Your task to perform on an android device: open app "Walmart Shopping & Grocery" (install if not already installed) and go to login screen Image 0: 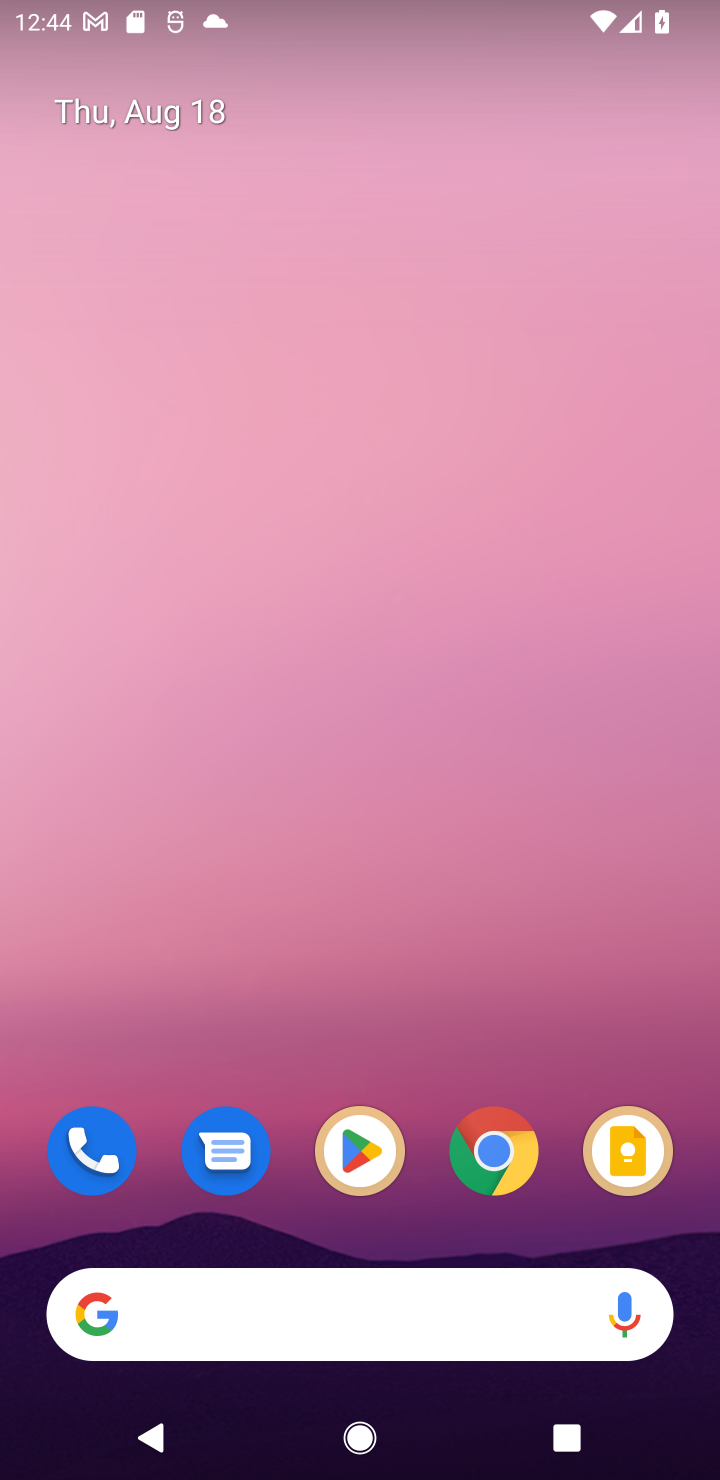
Step 0: click (348, 1152)
Your task to perform on an android device: open app "Walmart Shopping & Grocery" (install if not already installed) and go to login screen Image 1: 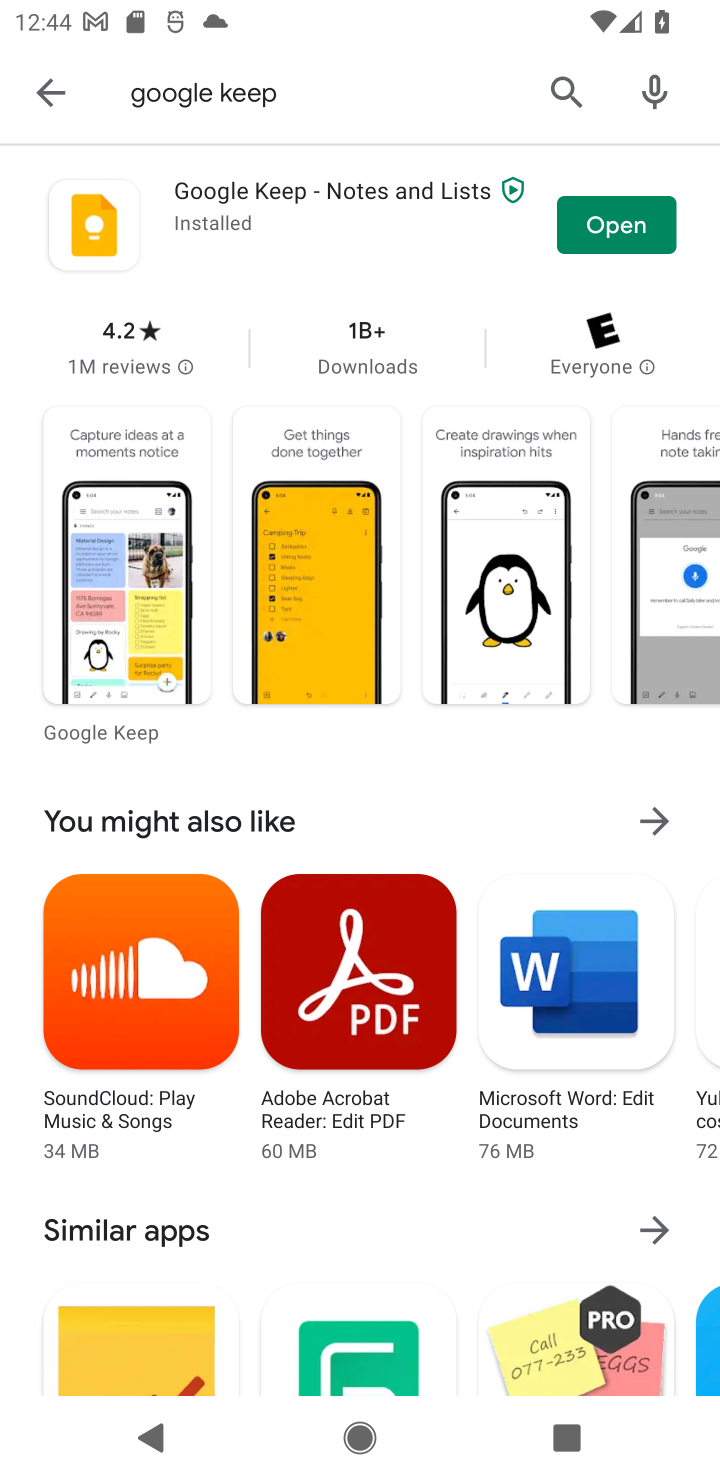
Step 1: click (704, 569)
Your task to perform on an android device: open app "Walmart Shopping & Grocery" (install if not already installed) and go to login screen Image 2: 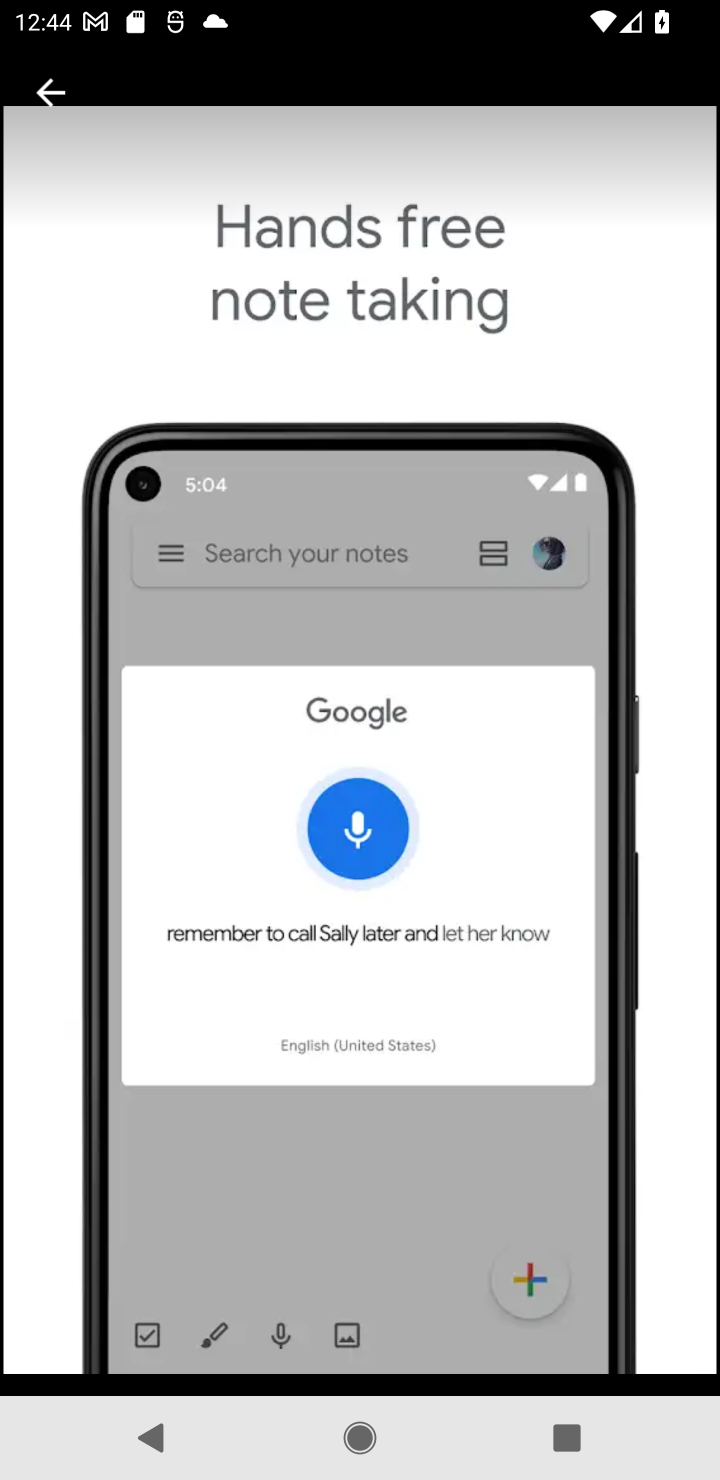
Step 2: click (40, 165)
Your task to perform on an android device: open app "Walmart Shopping & Grocery" (install if not already installed) and go to login screen Image 3: 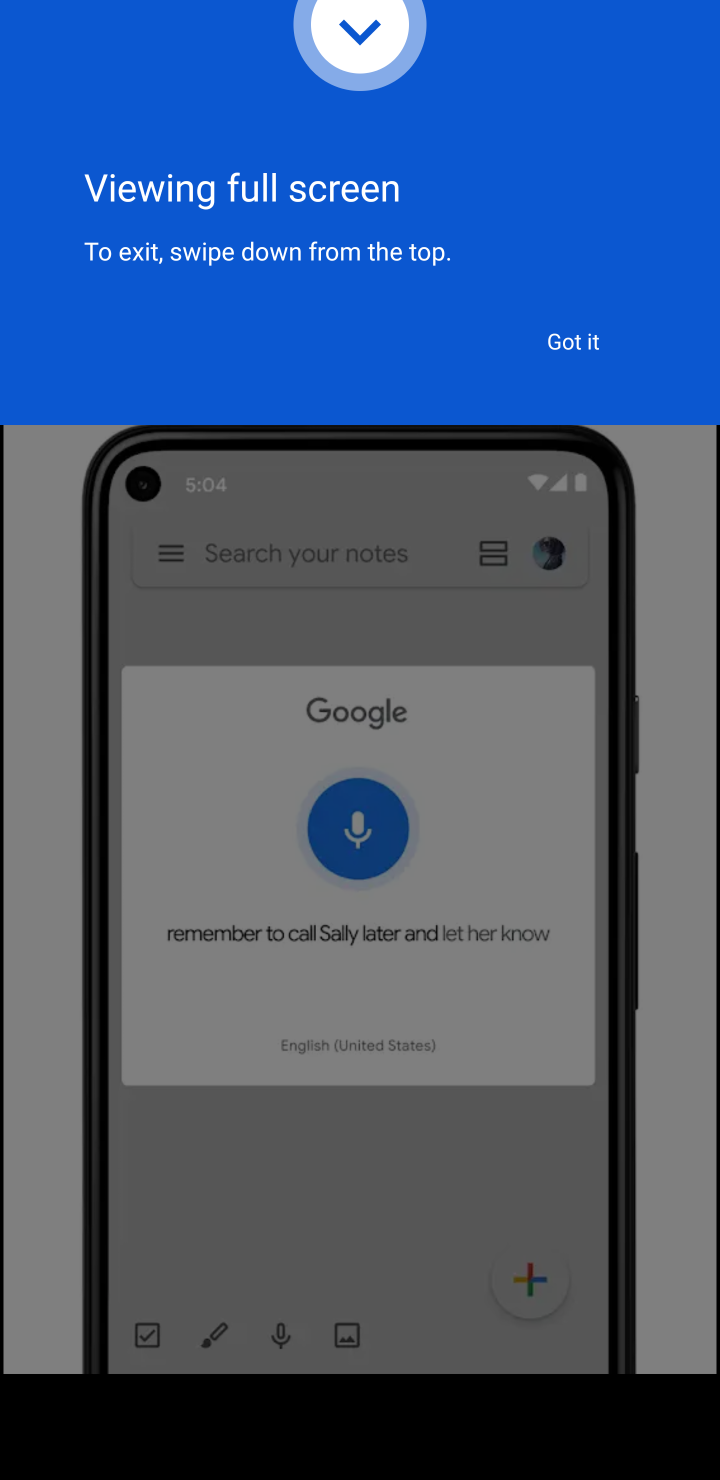
Step 3: press home button
Your task to perform on an android device: open app "Walmart Shopping & Grocery" (install if not already installed) and go to login screen Image 4: 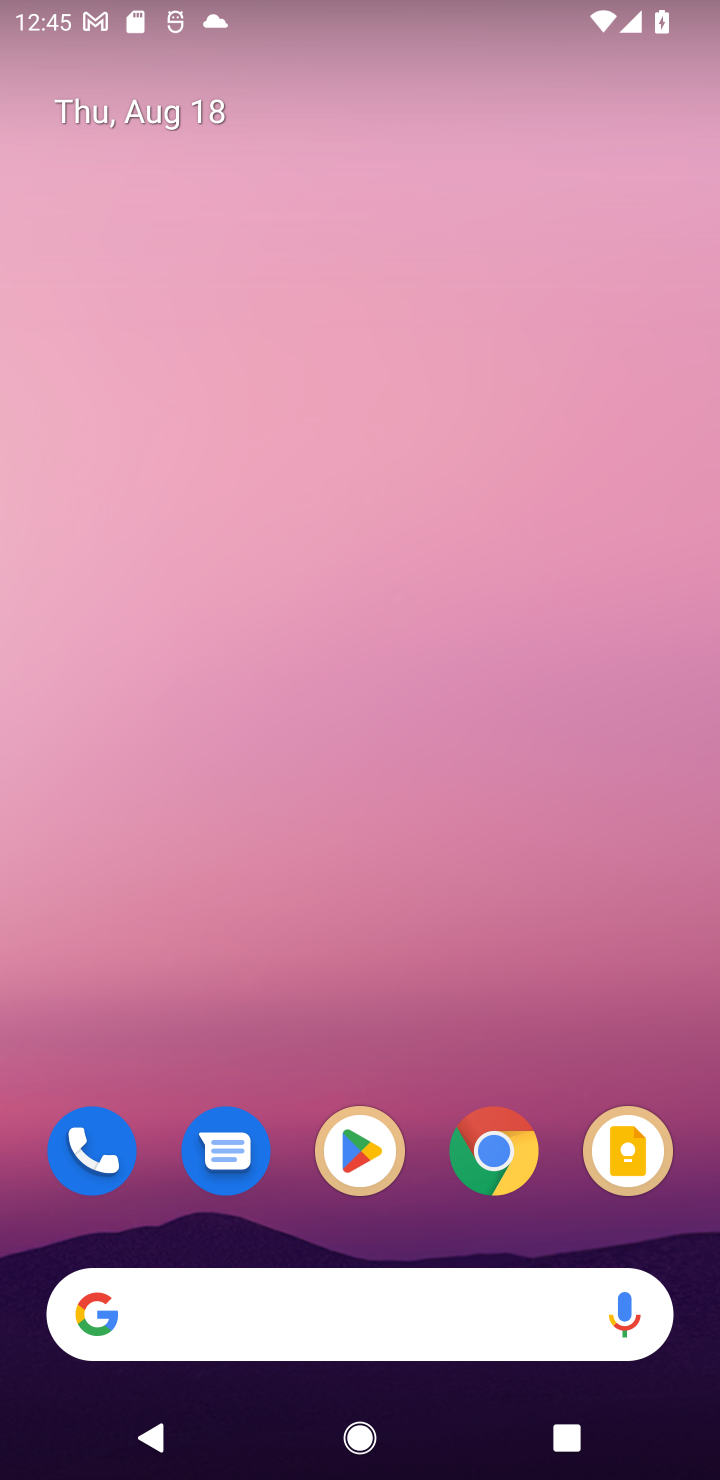
Step 4: click (348, 1152)
Your task to perform on an android device: open app "Walmart Shopping & Grocery" (install if not already installed) and go to login screen Image 5: 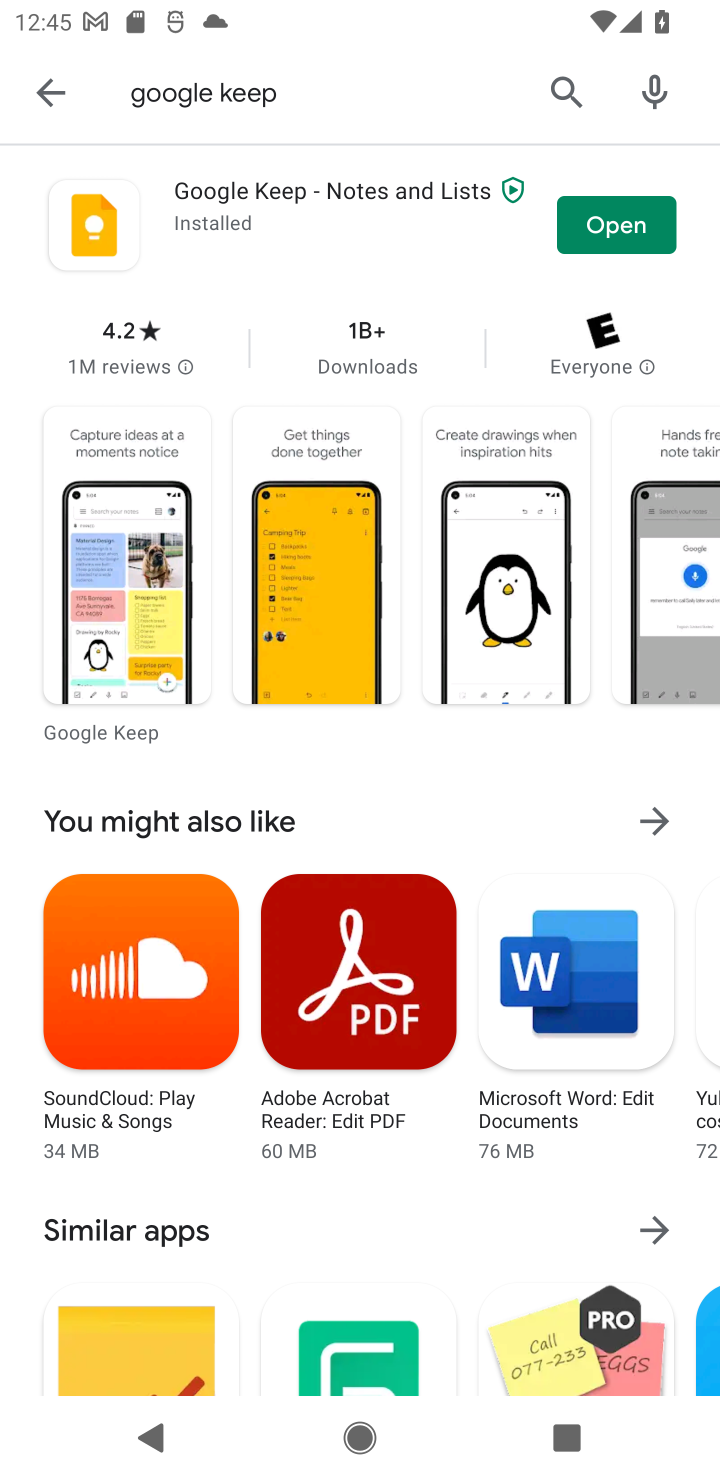
Step 5: click (40, 103)
Your task to perform on an android device: open app "Walmart Shopping & Grocery" (install if not already installed) and go to login screen Image 6: 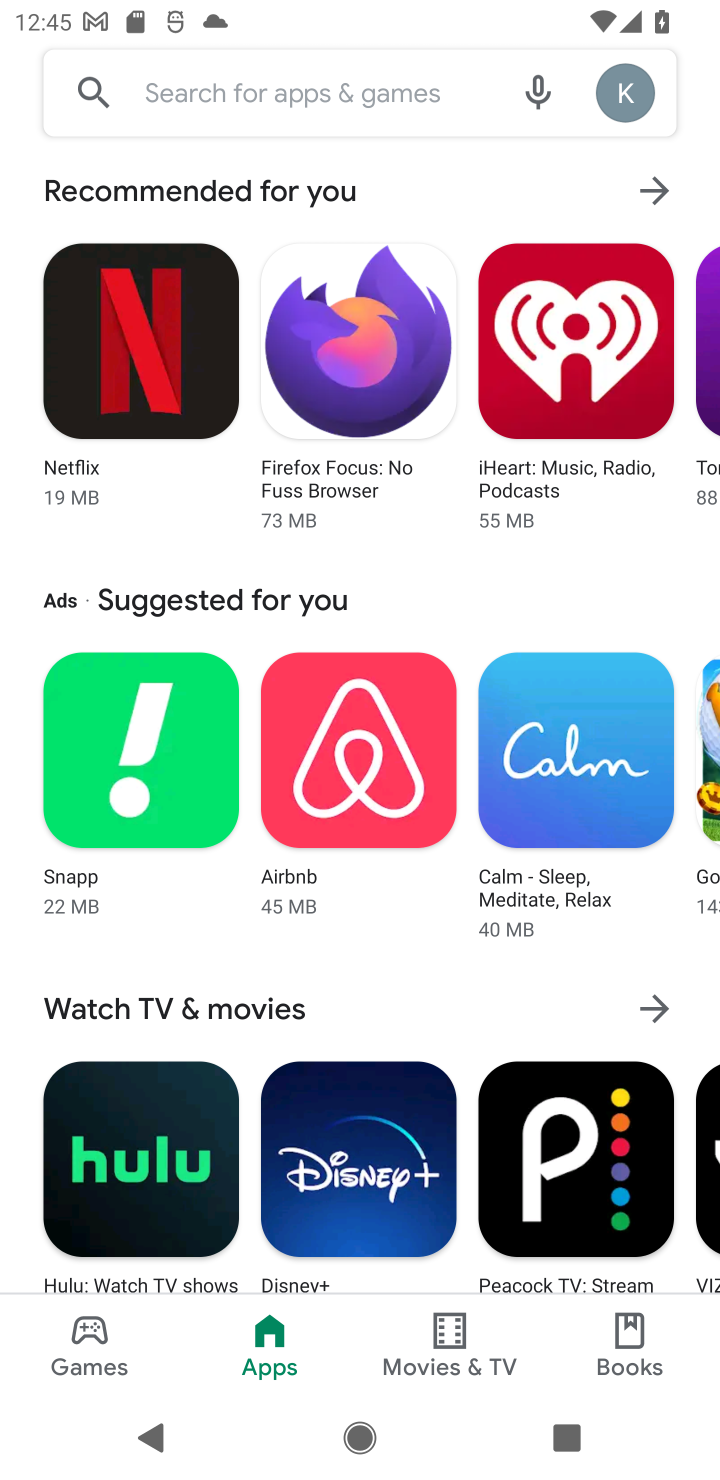
Step 6: click (302, 87)
Your task to perform on an android device: open app "Walmart Shopping & Grocery" (install if not already installed) and go to login screen Image 7: 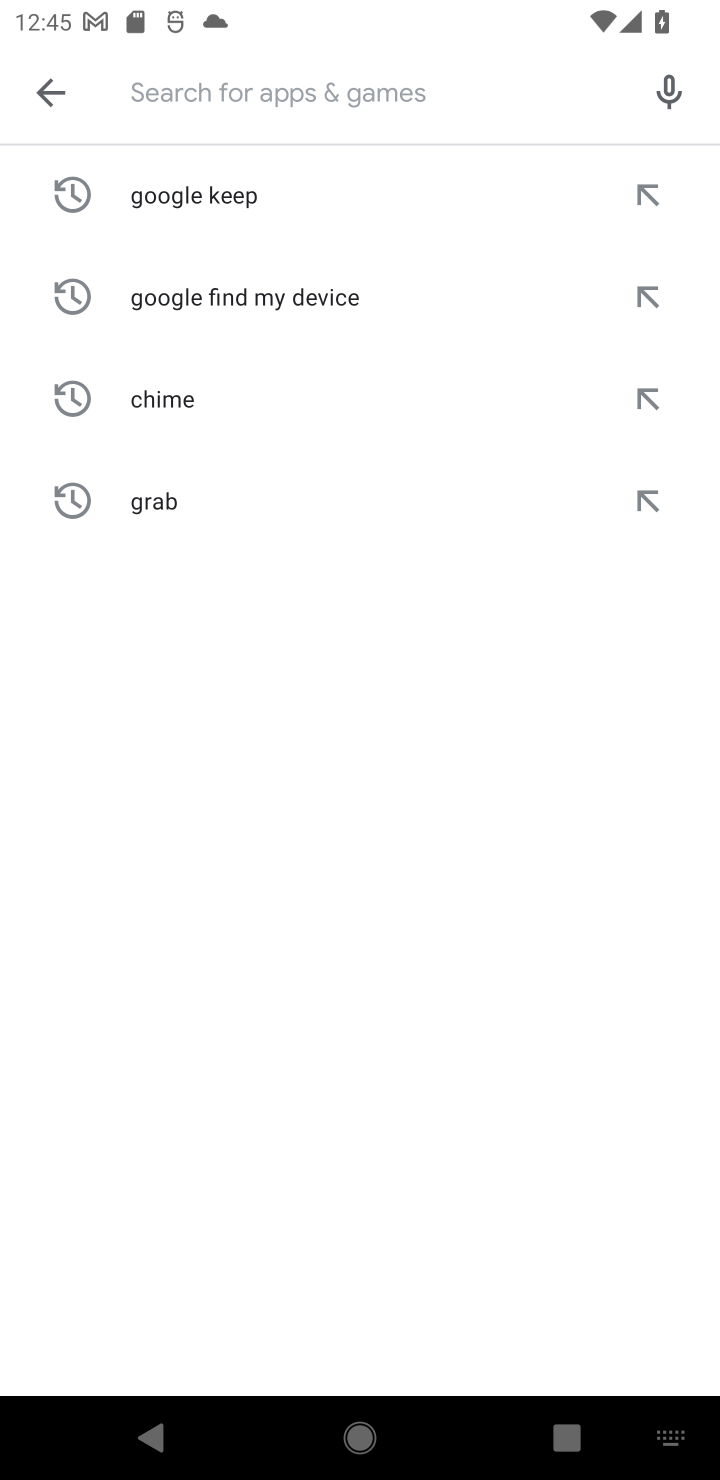
Step 7: type "Walmart Shopping & Grocery"
Your task to perform on an android device: open app "Walmart Shopping & Grocery" (install if not already installed) and go to login screen Image 8: 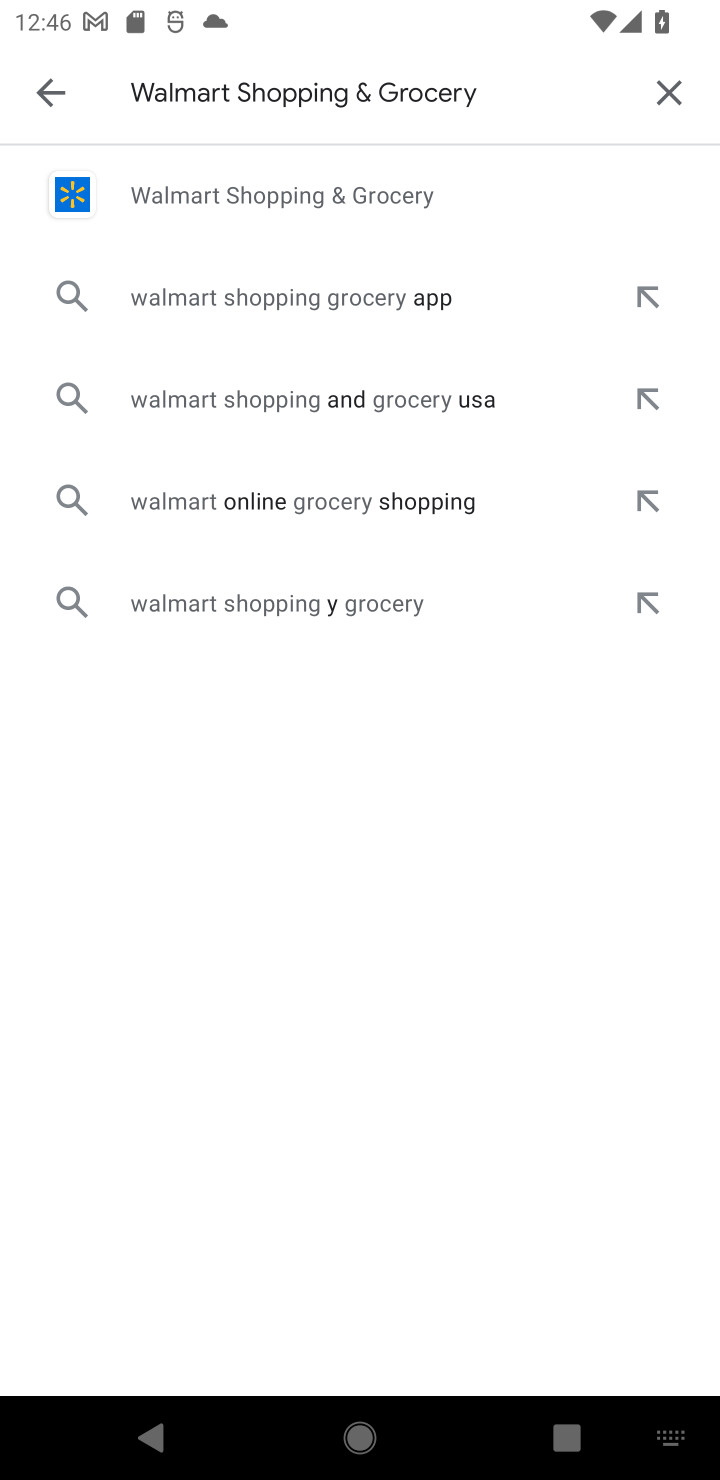
Step 8: click (244, 196)
Your task to perform on an android device: open app "Walmart Shopping & Grocery" (install if not already installed) and go to login screen Image 9: 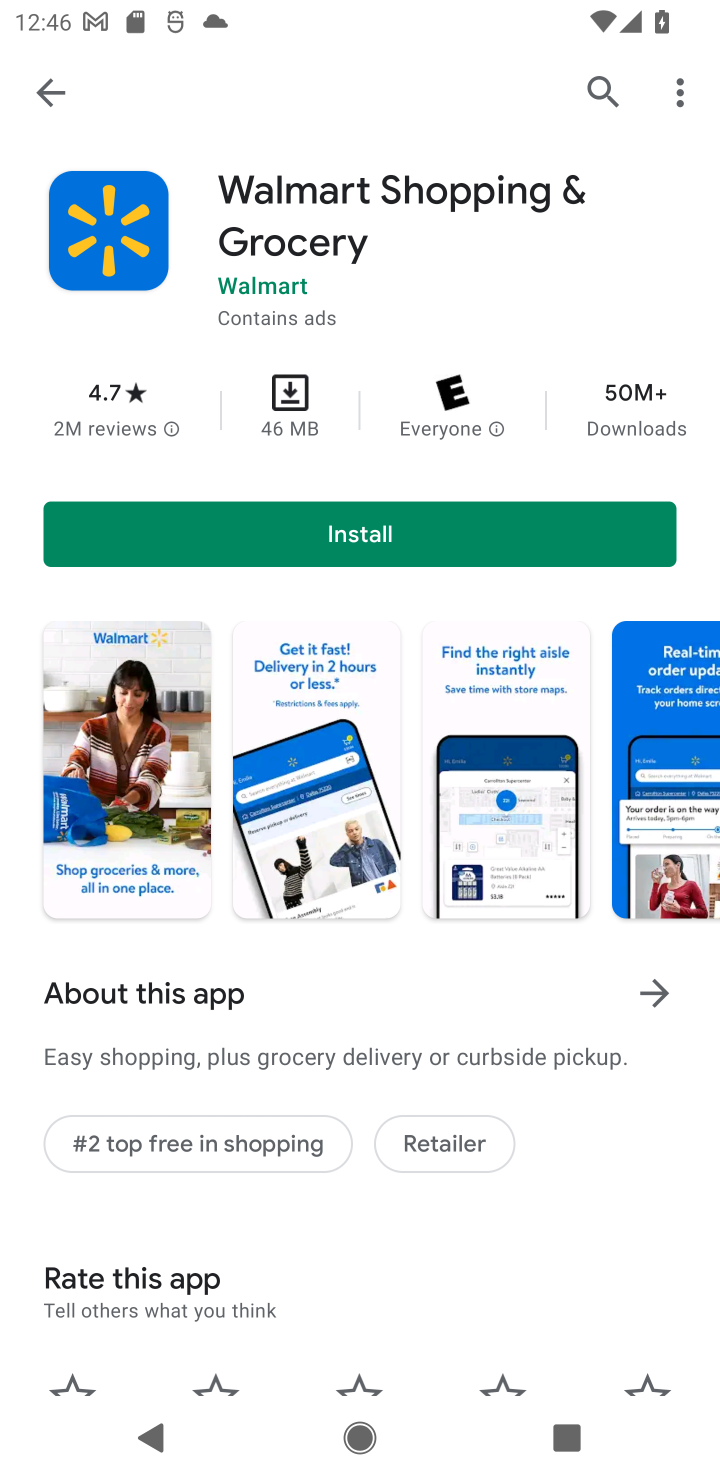
Step 9: click (365, 526)
Your task to perform on an android device: open app "Walmart Shopping & Grocery" (install if not already installed) and go to login screen Image 10: 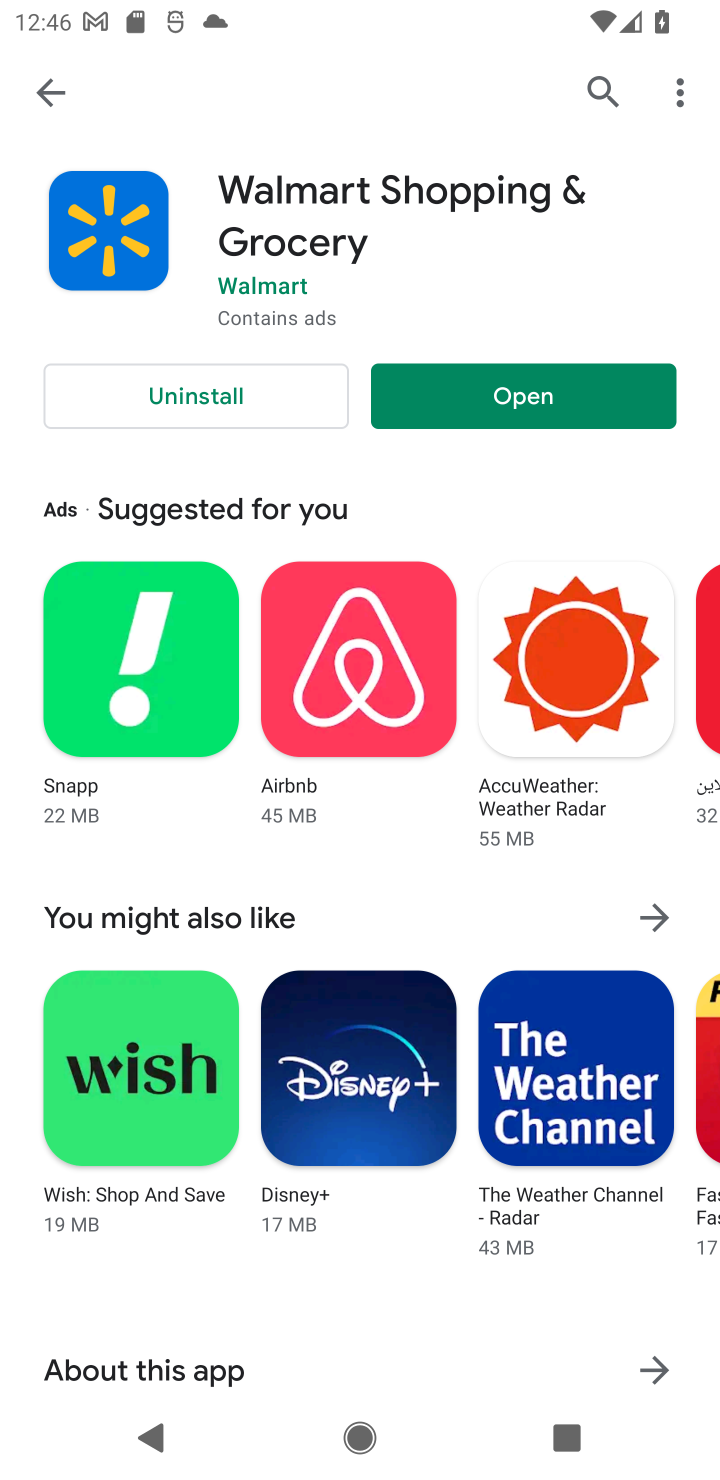
Step 10: click (512, 413)
Your task to perform on an android device: open app "Walmart Shopping & Grocery" (install if not already installed) and go to login screen Image 11: 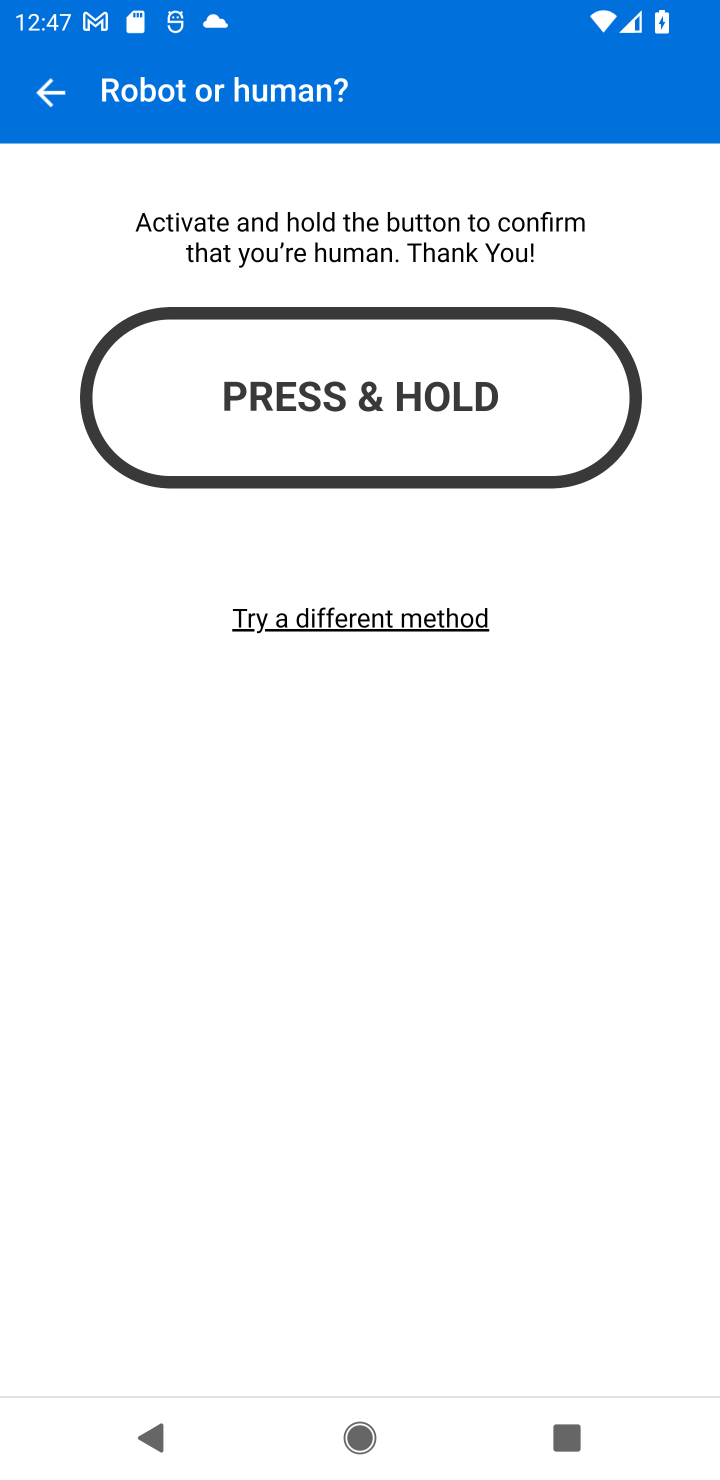
Step 11: task complete